Your task to perform on an android device: Open the web browser Image 0: 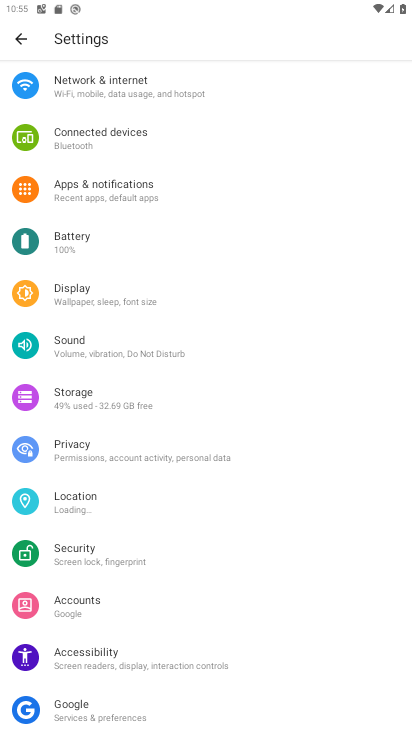
Step 0: press home button
Your task to perform on an android device: Open the web browser Image 1: 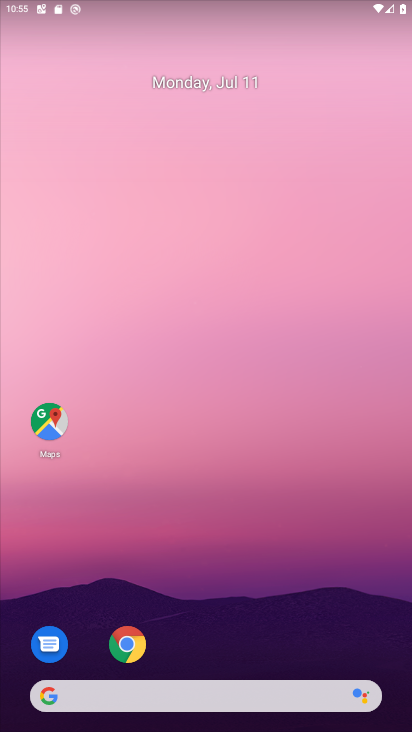
Step 1: click (132, 643)
Your task to perform on an android device: Open the web browser Image 2: 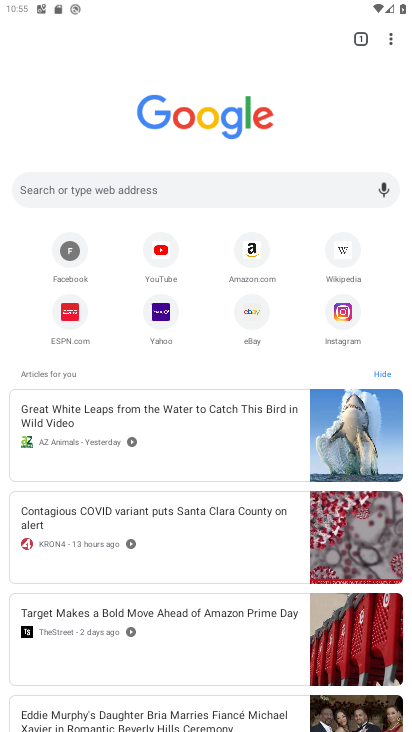
Step 2: task complete